Your task to perform on an android device: Go to privacy settings Image 0: 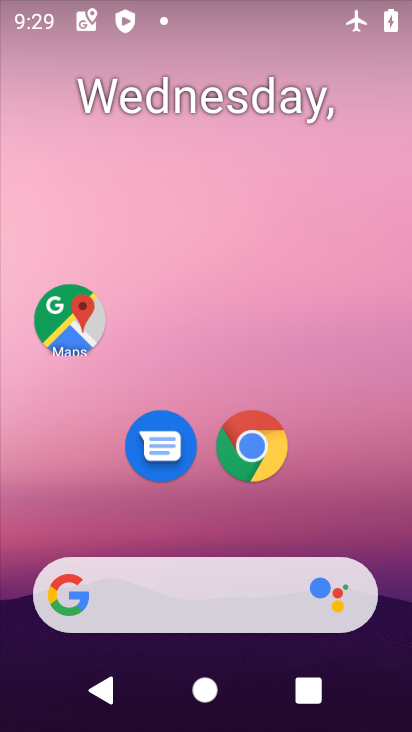
Step 0: press home button
Your task to perform on an android device: Go to privacy settings Image 1: 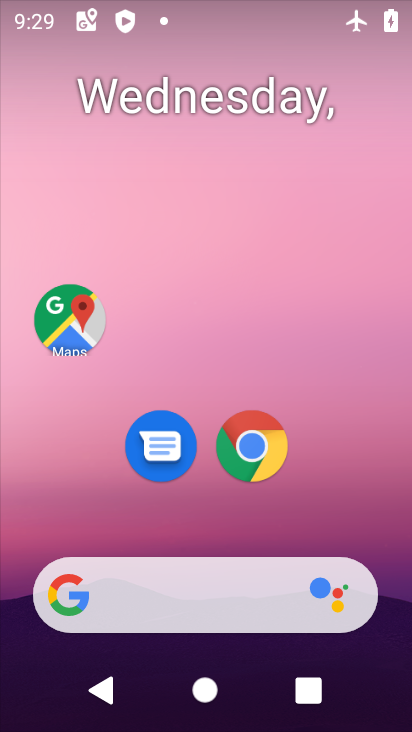
Step 1: drag from (184, 560) to (311, 67)
Your task to perform on an android device: Go to privacy settings Image 2: 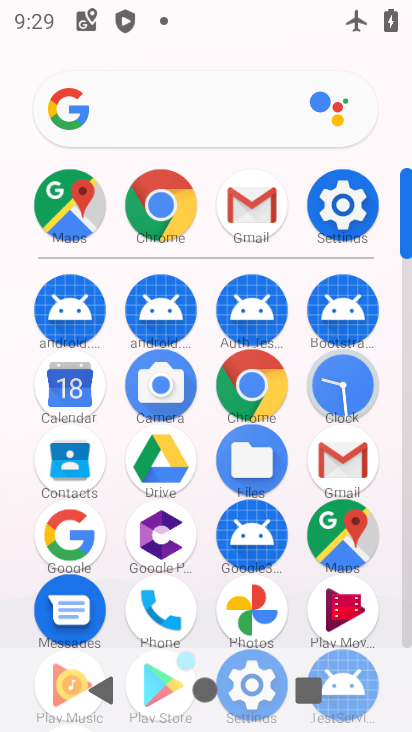
Step 2: click (350, 209)
Your task to perform on an android device: Go to privacy settings Image 3: 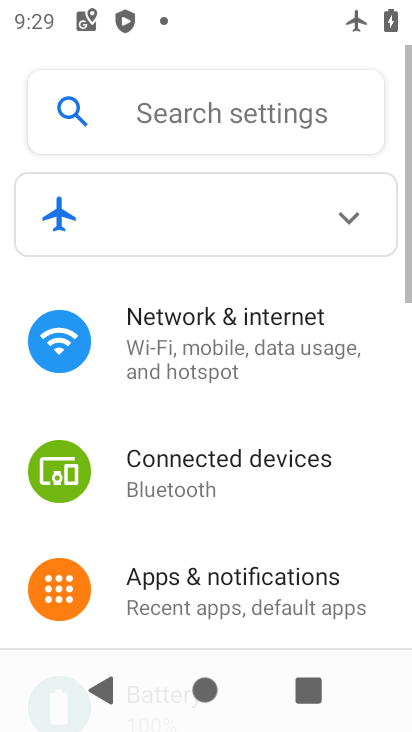
Step 3: drag from (201, 584) to (299, 87)
Your task to perform on an android device: Go to privacy settings Image 4: 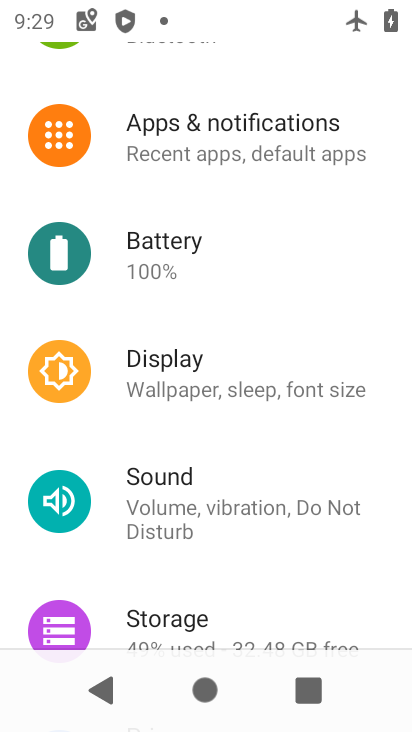
Step 4: drag from (206, 614) to (317, 143)
Your task to perform on an android device: Go to privacy settings Image 5: 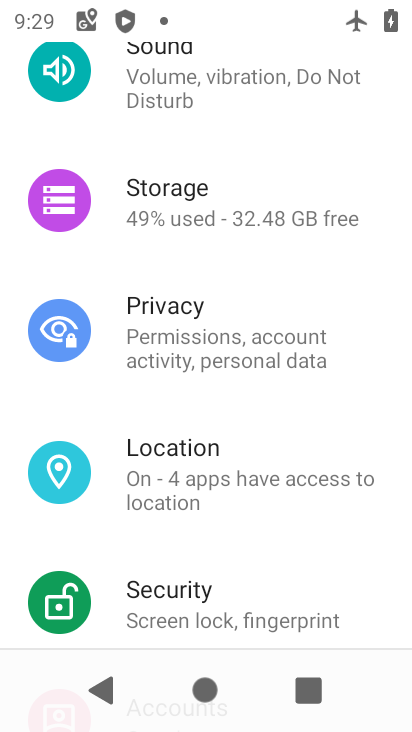
Step 5: click (213, 339)
Your task to perform on an android device: Go to privacy settings Image 6: 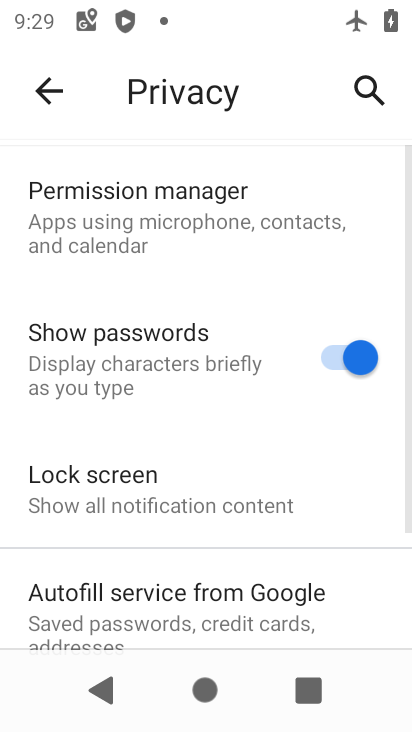
Step 6: task complete